Your task to perform on an android device: open wifi settings Image 0: 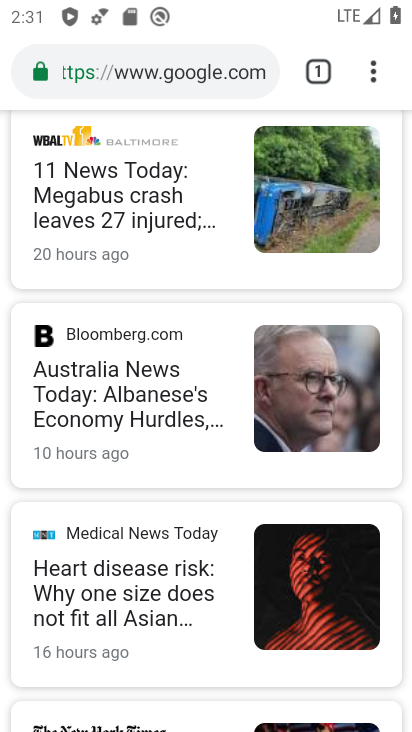
Step 0: press back button
Your task to perform on an android device: open wifi settings Image 1: 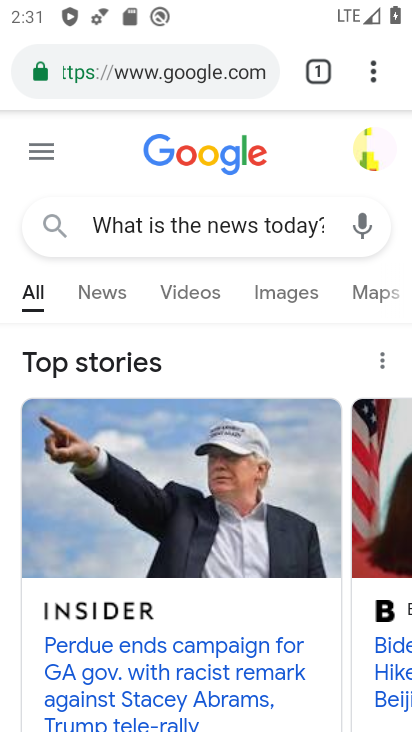
Step 1: press home button
Your task to perform on an android device: open wifi settings Image 2: 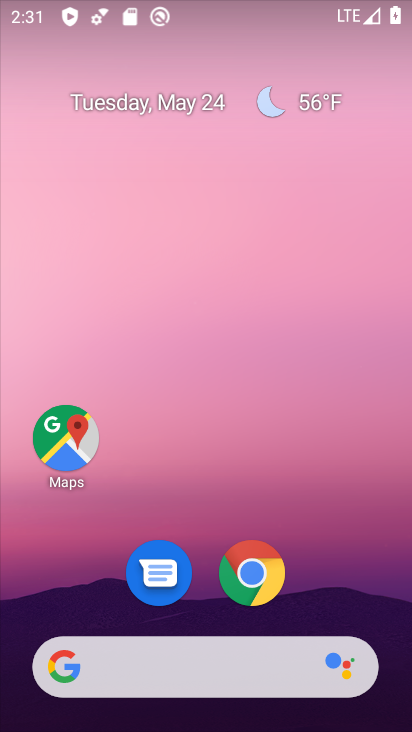
Step 2: drag from (328, 604) to (234, 33)
Your task to perform on an android device: open wifi settings Image 3: 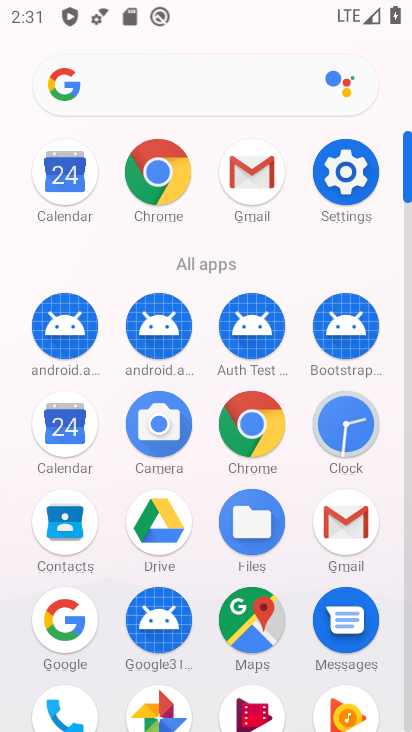
Step 3: click (346, 171)
Your task to perform on an android device: open wifi settings Image 4: 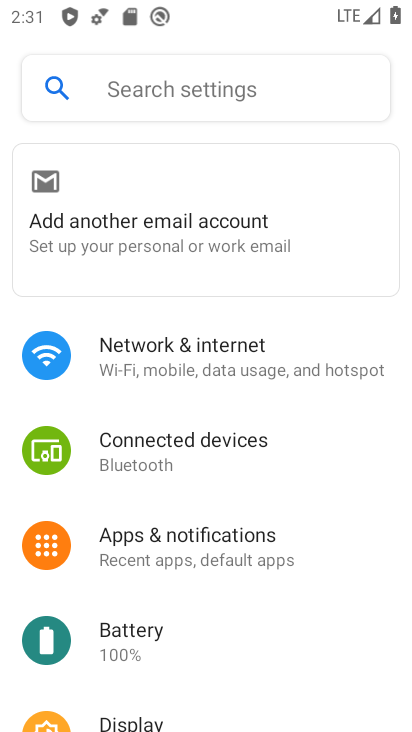
Step 4: click (212, 342)
Your task to perform on an android device: open wifi settings Image 5: 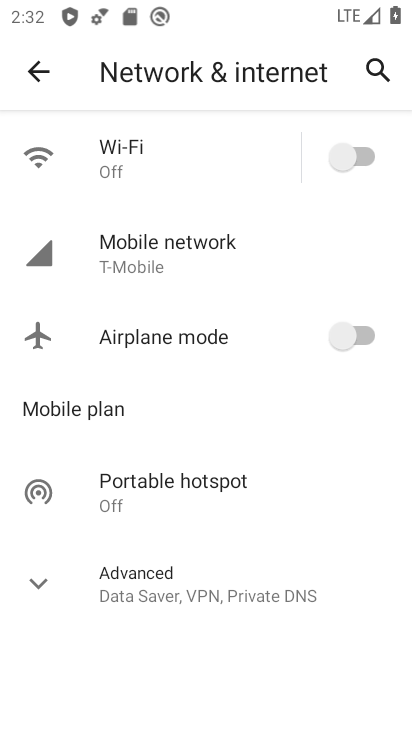
Step 5: click (134, 163)
Your task to perform on an android device: open wifi settings Image 6: 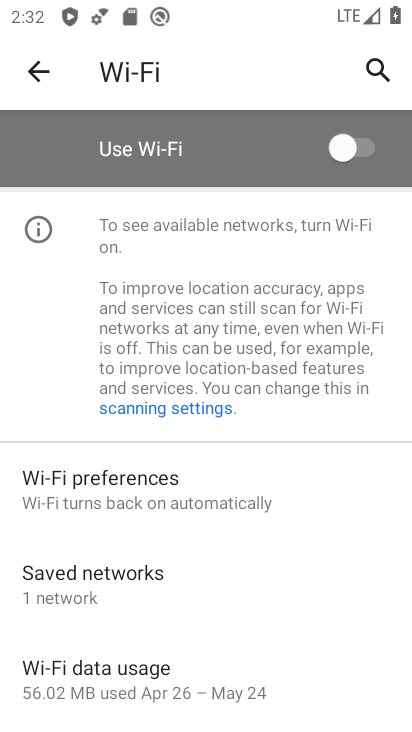
Step 6: task complete